Your task to perform on an android device: Go to sound settings Image 0: 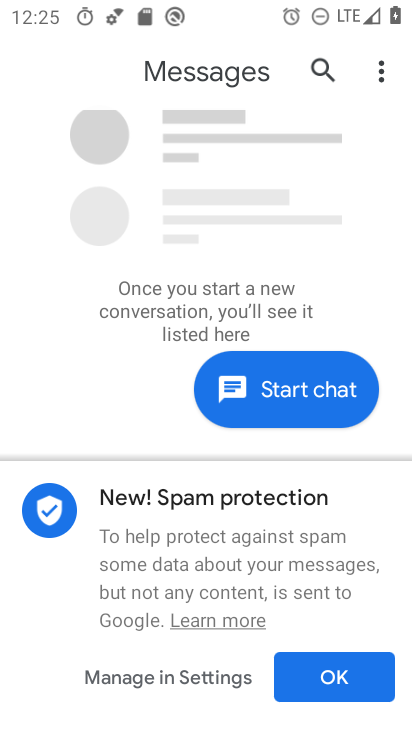
Step 0: press home button
Your task to perform on an android device: Go to sound settings Image 1: 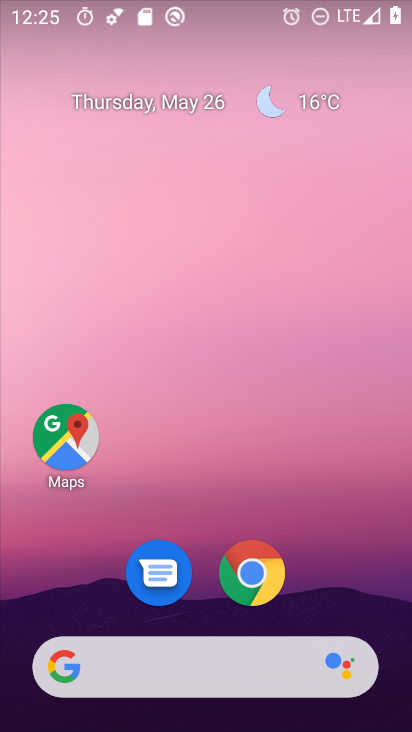
Step 1: drag from (305, 611) to (306, 5)
Your task to perform on an android device: Go to sound settings Image 2: 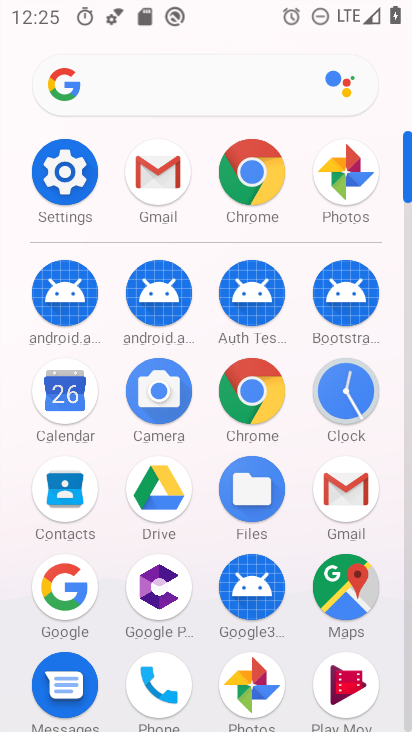
Step 2: click (60, 172)
Your task to perform on an android device: Go to sound settings Image 3: 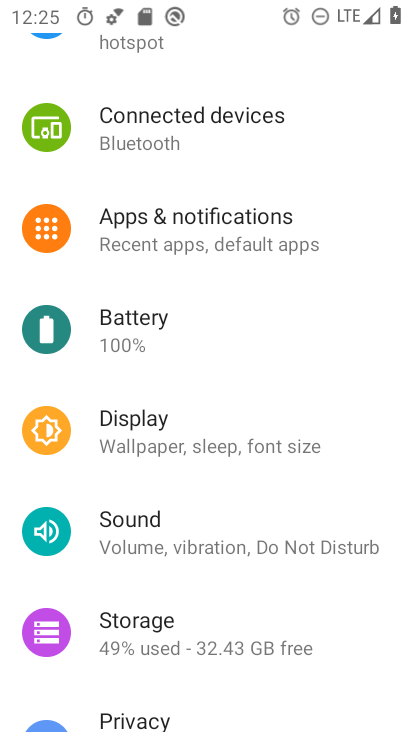
Step 3: click (167, 548)
Your task to perform on an android device: Go to sound settings Image 4: 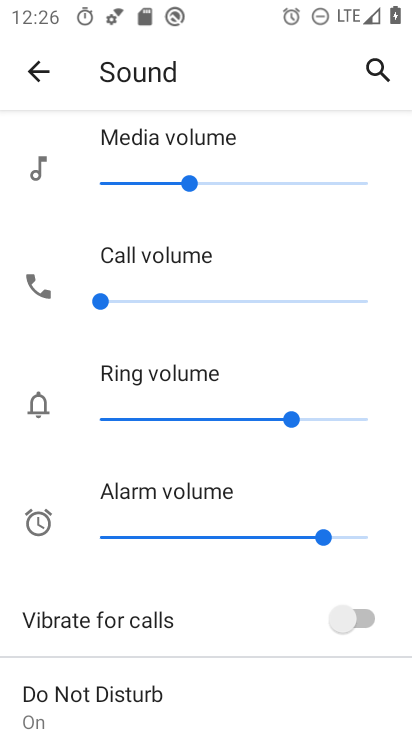
Step 4: task complete